Your task to perform on an android device: change timer sound Image 0: 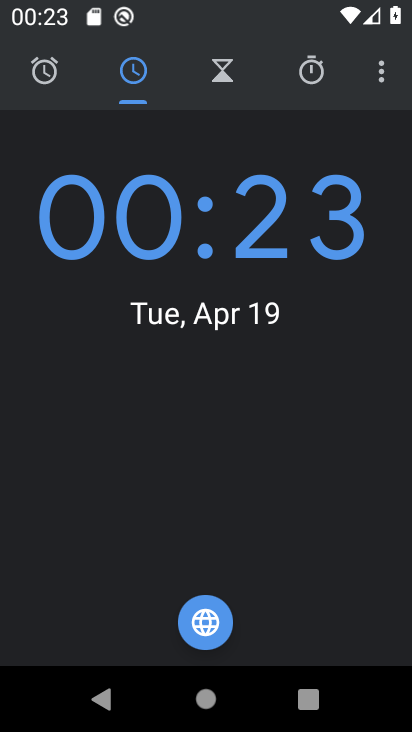
Step 0: click (375, 68)
Your task to perform on an android device: change timer sound Image 1: 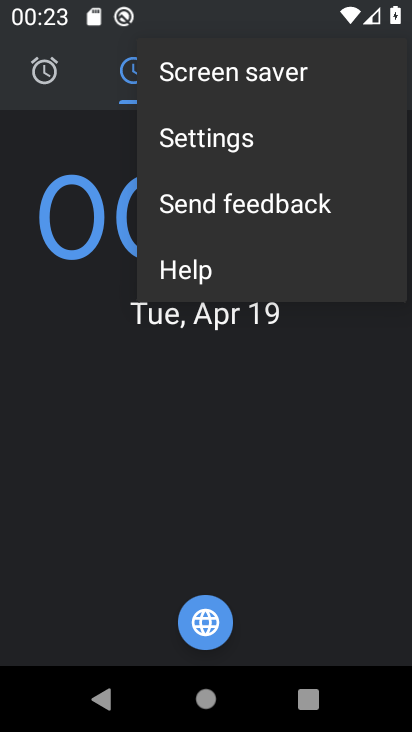
Step 1: click (206, 141)
Your task to perform on an android device: change timer sound Image 2: 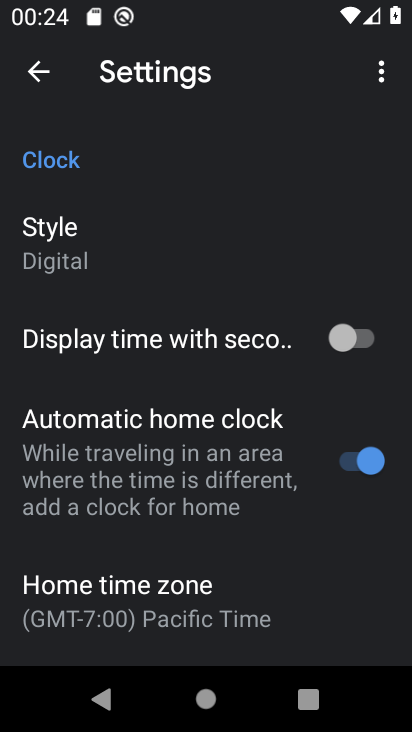
Step 2: drag from (188, 537) to (241, 217)
Your task to perform on an android device: change timer sound Image 3: 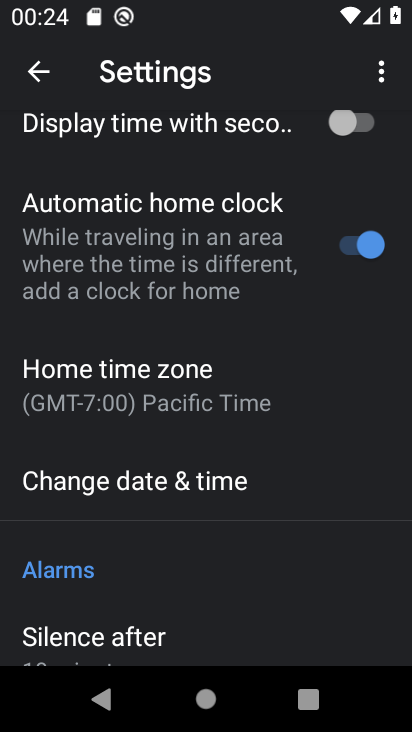
Step 3: drag from (158, 528) to (193, 178)
Your task to perform on an android device: change timer sound Image 4: 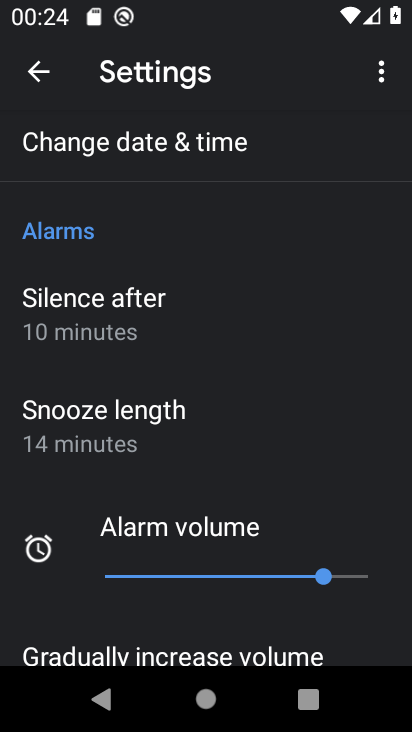
Step 4: drag from (122, 530) to (166, 104)
Your task to perform on an android device: change timer sound Image 5: 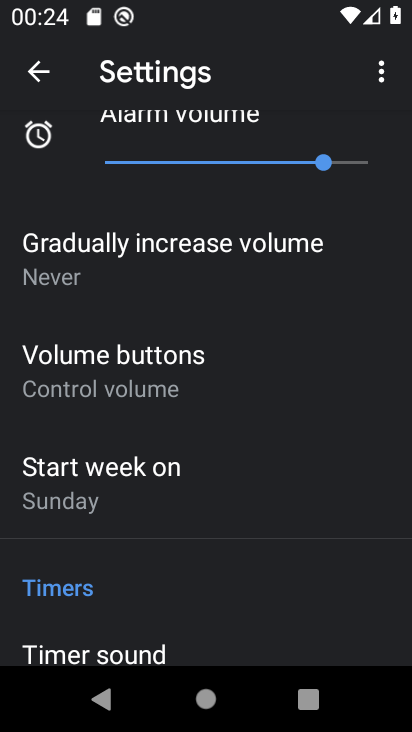
Step 5: drag from (141, 578) to (198, 258)
Your task to perform on an android device: change timer sound Image 6: 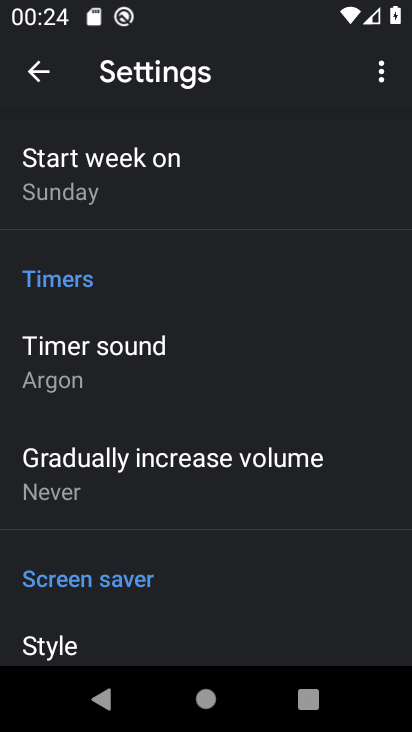
Step 6: click (83, 370)
Your task to perform on an android device: change timer sound Image 7: 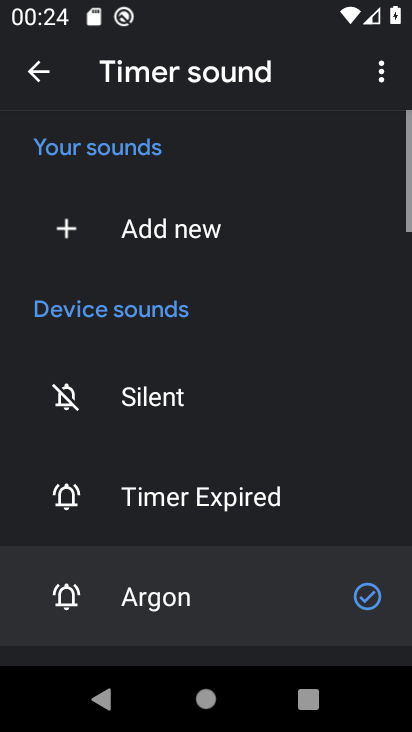
Step 7: drag from (153, 556) to (173, 276)
Your task to perform on an android device: change timer sound Image 8: 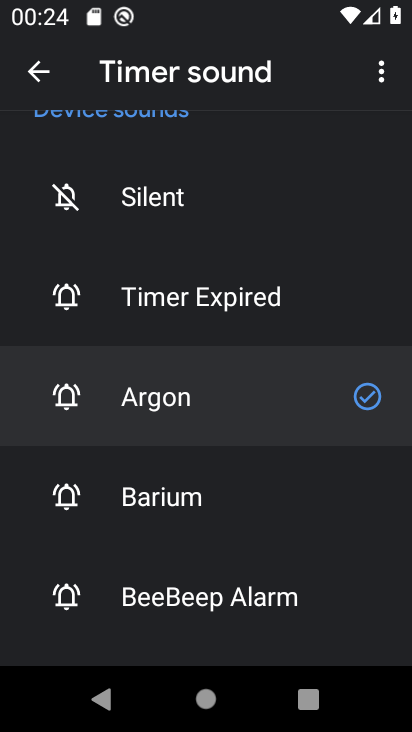
Step 8: click (185, 573)
Your task to perform on an android device: change timer sound Image 9: 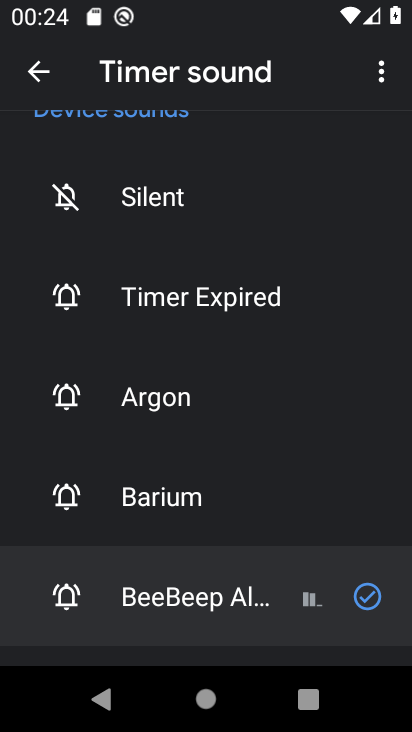
Step 9: task complete